Your task to perform on an android device: Set the phone to "Do not disturb". Image 0: 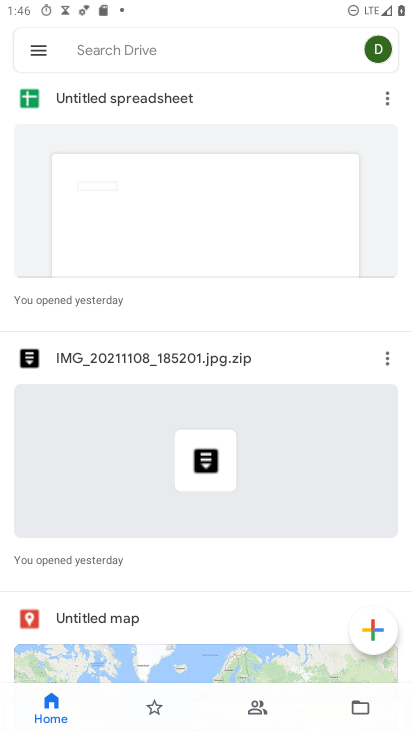
Step 0: press home button
Your task to perform on an android device: Set the phone to "Do not disturb". Image 1: 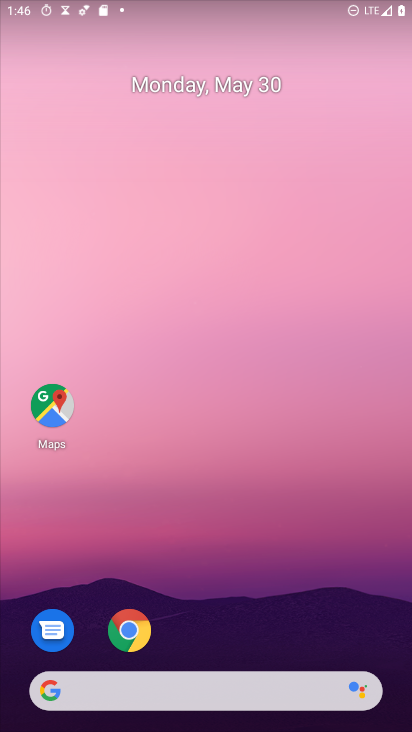
Step 1: drag from (234, 698) to (255, 144)
Your task to perform on an android device: Set the phone to "Do not disturb". Image 2: 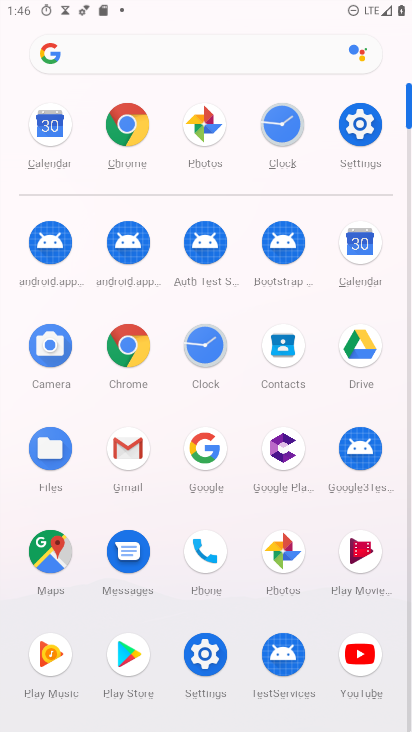
Step 2: click (352, 136)
Your task to perform on an android device: Set the phone to "Do not disturb". Image 3: 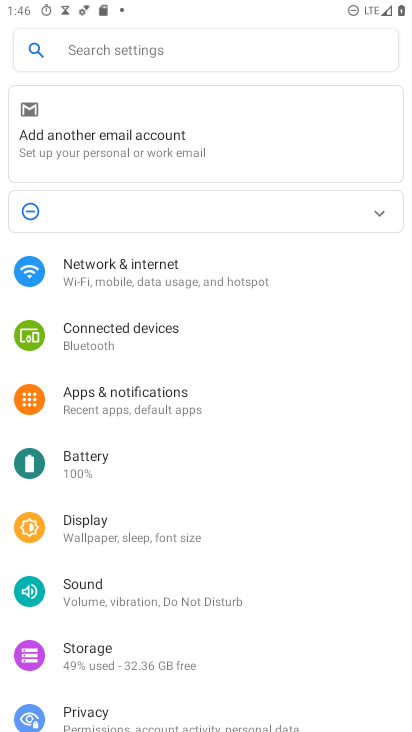
Step 3: click (155, 53)
Your task to perform on an android device: Set the phone to "Do not disturb". Image 4: 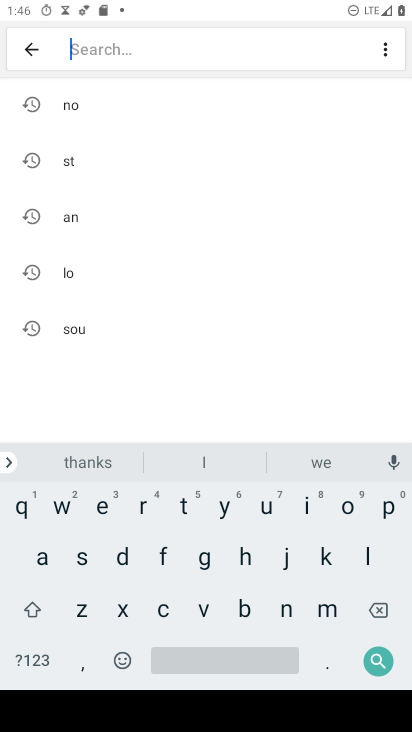
Step 4: click (115, 555)
Your task to perform on an android device: Set the phone to "Do not disturb". Image 5: 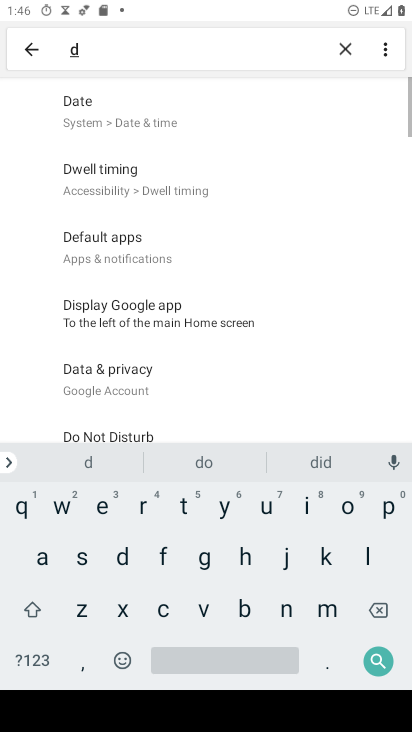
Step 5: click (283, 606)
Your task to perform on an android device: Set the phone to "Do not disturb". Image 6: 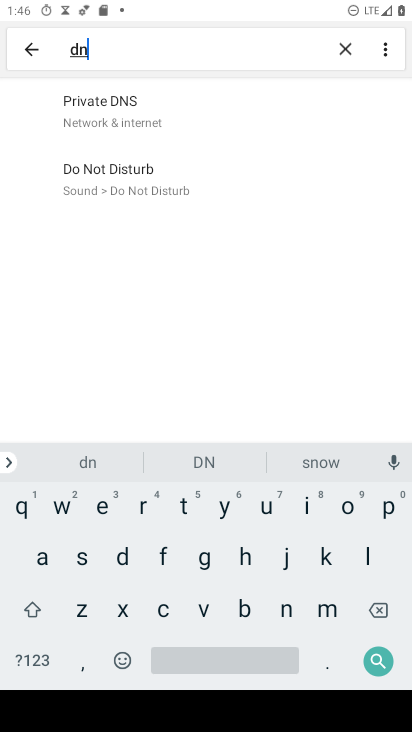
Step 6: click (120, 557)
Your task to perform on an android device: Set the phone to "Do not disturb". Image 7: 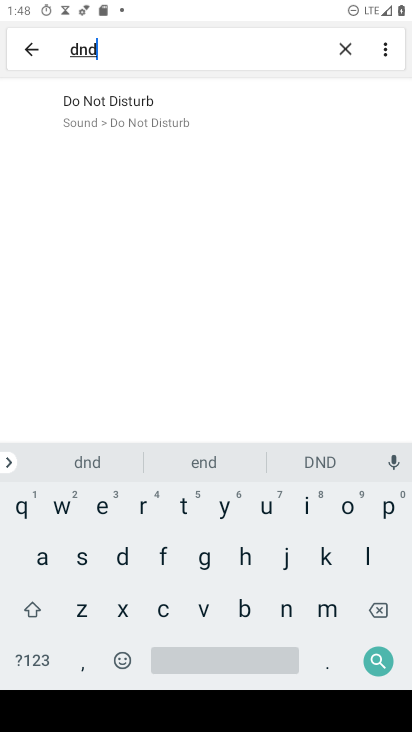
Step 7: click (116, 122)
Your task to perform on an android device: Set the phone to "Do not disturb". Image 8: 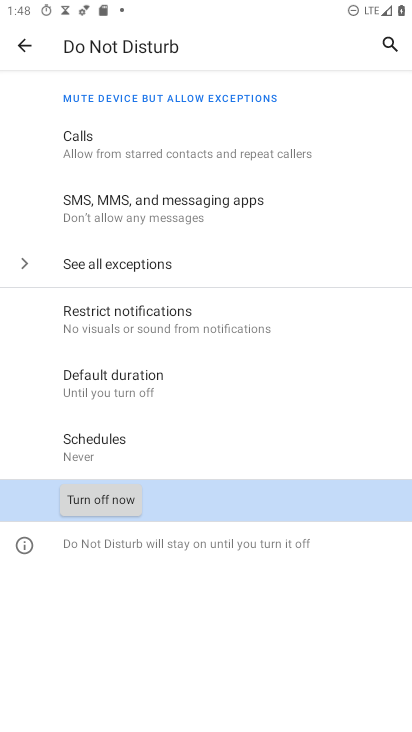
Step 8: task complete